Your task to perform on an android device: Go to privacy settings Image 0: 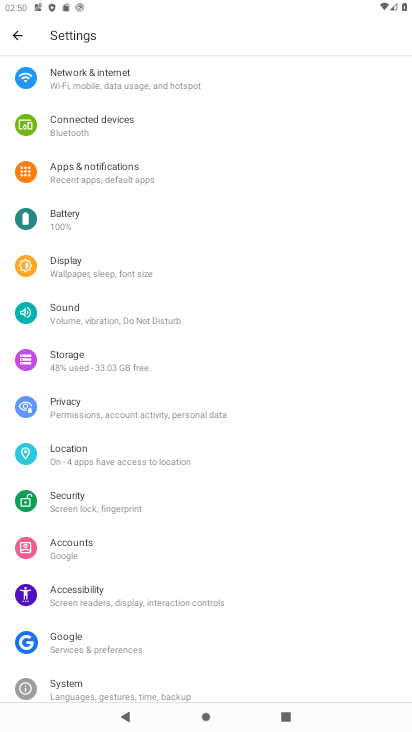
Step 0: press home button
Your task to perform on an android device: Go to privacy settings Image 1: 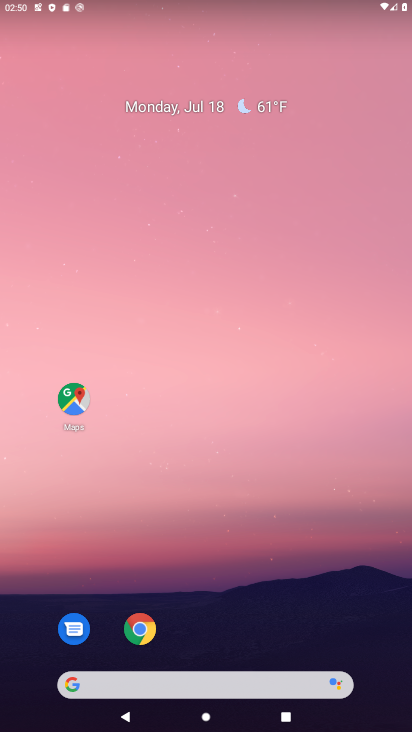
Step 1: drag from (218, 676) to (238, 107)
Your task to perform on an android device: Go to privacy settings Image 2: 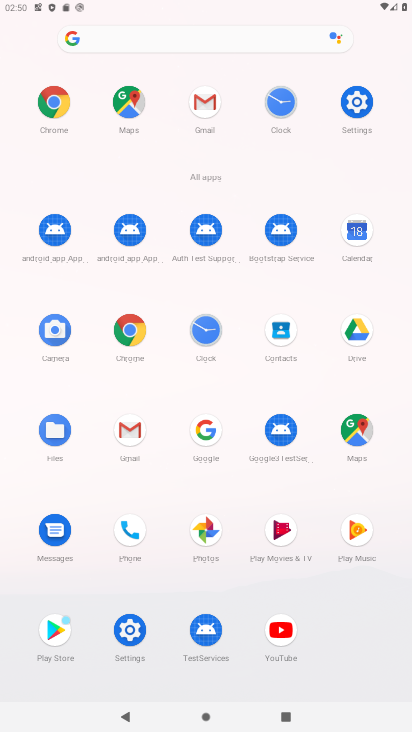
Step 2: click (358, 103)
Your task to perform on an android device: Go to privacy settings Image 3: 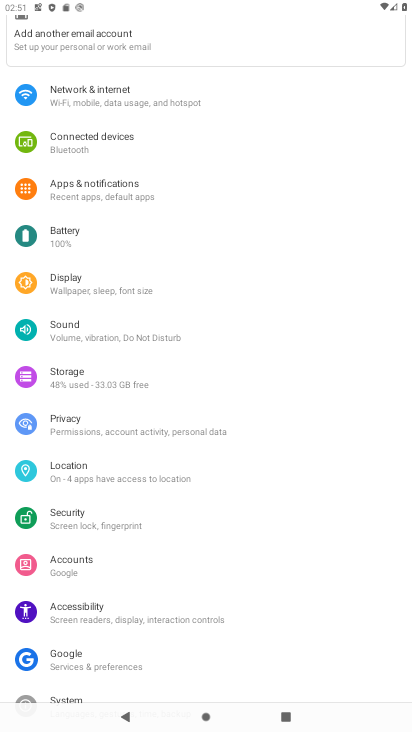
Step 3: click (82, 426)
Your task to perform on an android device: Go to privacy settings Image 4: 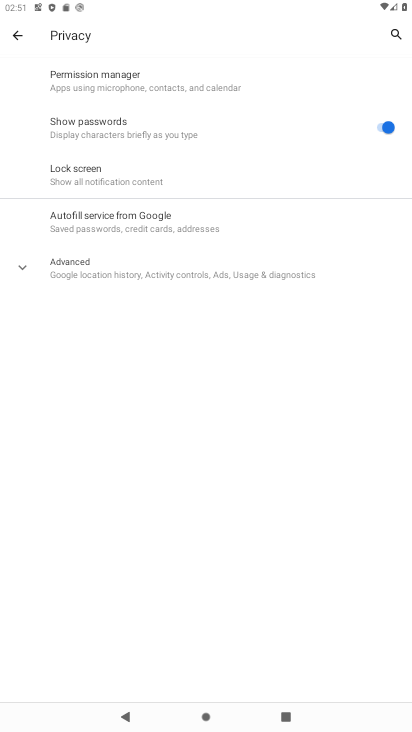
Step 4: task complete